Your task to perform on an android device: Show me popular videos on Youtube Image 0: 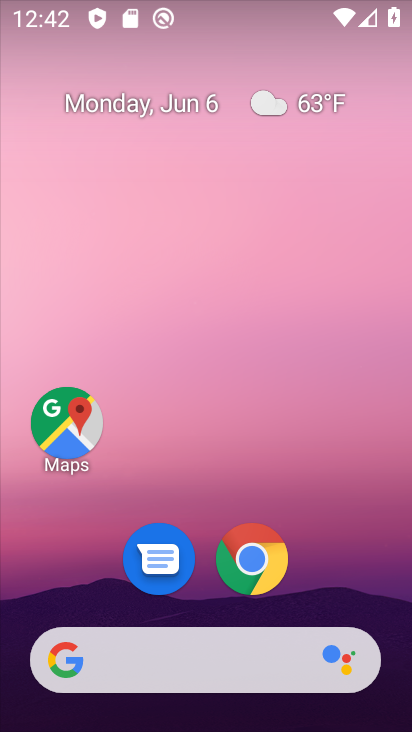
Step 0: drag from (99, 638) to (145, 207)
Your task to perform on an android device: Show me popular videos on Youtube Image 1: 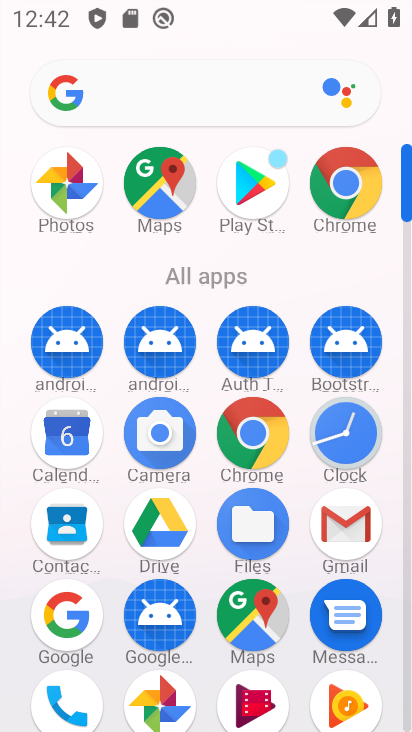
Step 1: drag from (187, 630) to (372, 137)
Your task to perform on an android device: Show me popular videos on Youtube Image 2: 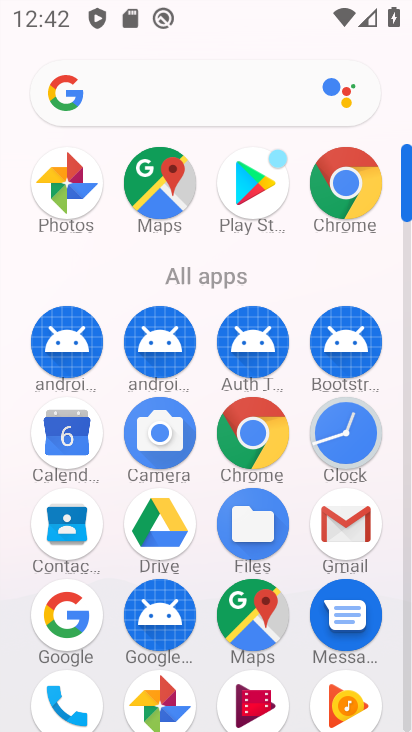
Step 2: drag from (411, 214) to (403, 631)
Your task to perform on an android device: Show me popular videos on Youtube Image 3: 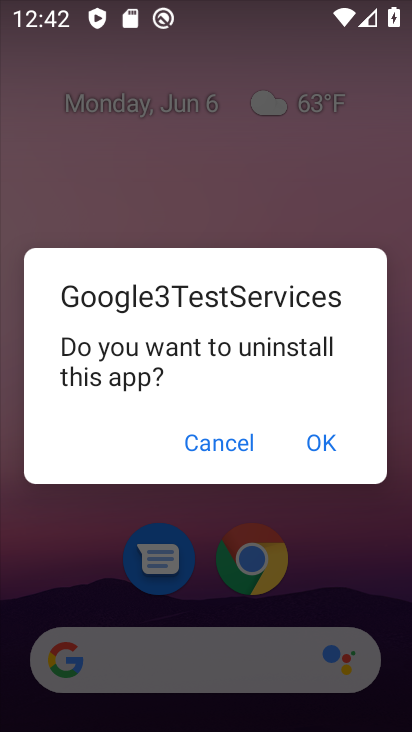
Step 3: drag from (298, 636) to (397, 135)
Your task to perform on an android device: Show me popular videos on Youtube Image 4: 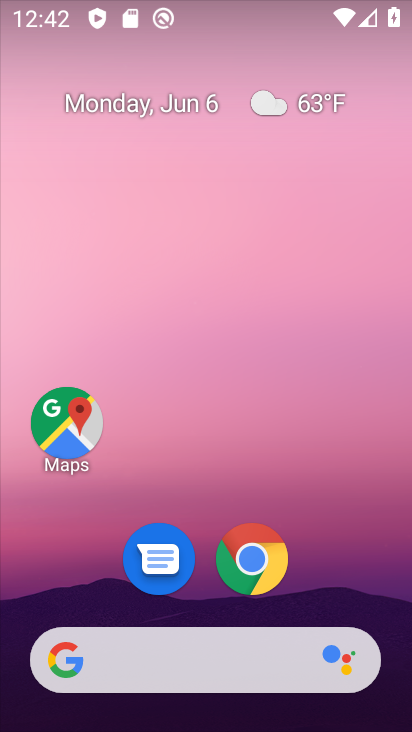
Step 4: drag from (79, 617) to (183, 163)
Your task to perform on an android device: Show me popular videos on Youtube Image 5: 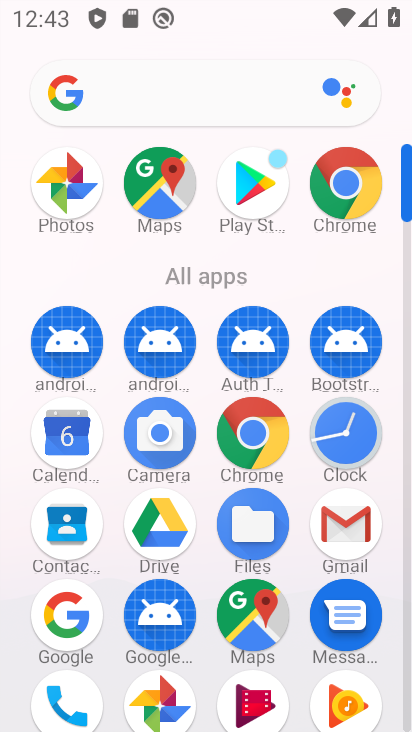
Step 5: drag from (300, 577) to (357, 255)
Your task to perform on an android device: Show me popular videos on Youtube Image 6: 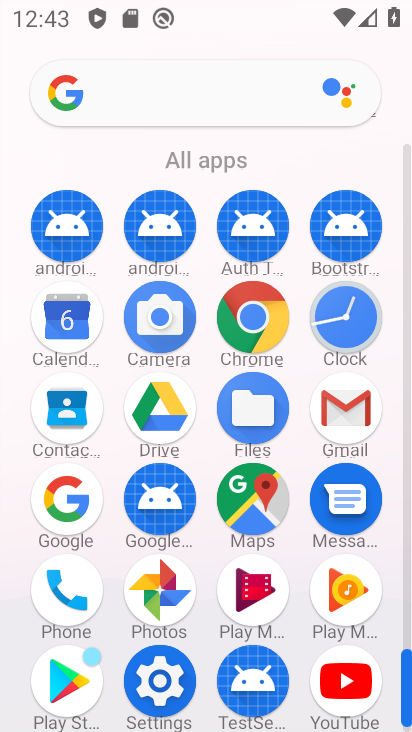
Step 6: click (360, 645)
Your task to perform on an android device: Show me popular videos on Youtube Image 7: 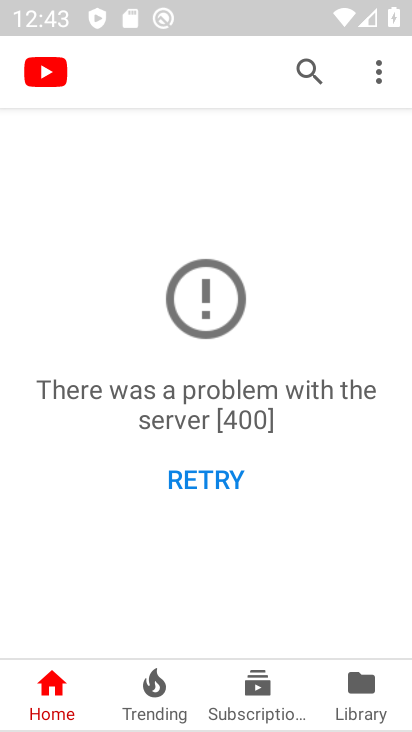
Step 7: click (375, 713)
Your task to perform on an android device: Show me popular videos on Youtube Image 8: 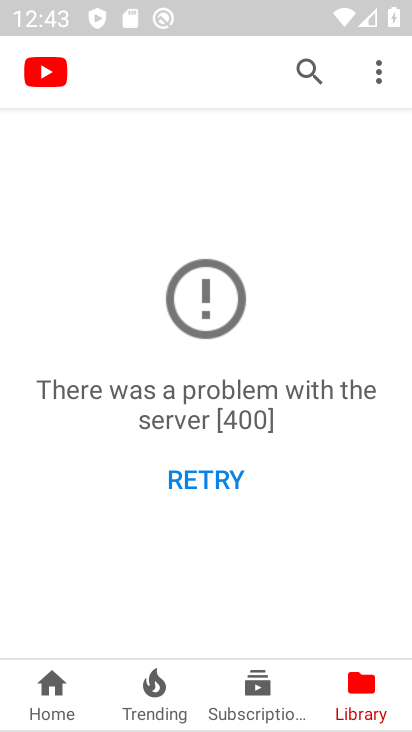
Step 8: task complete